Your task to perform on an android device: change notifications settings Image 0: 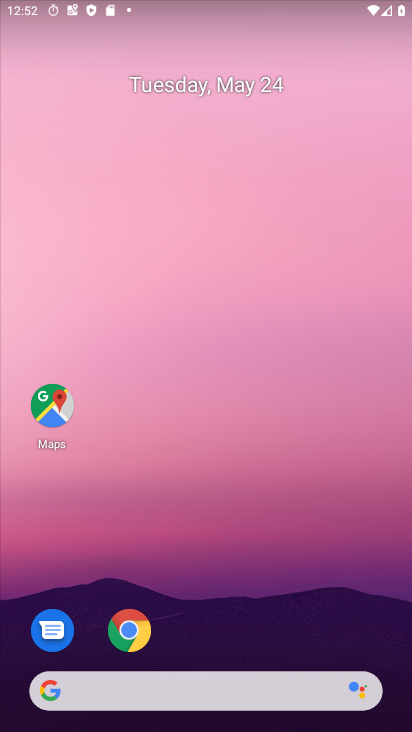
Step 0: drag from (231, 643) to (250, 115)
Your task to perform on an android device: change notifications settings Image 1: 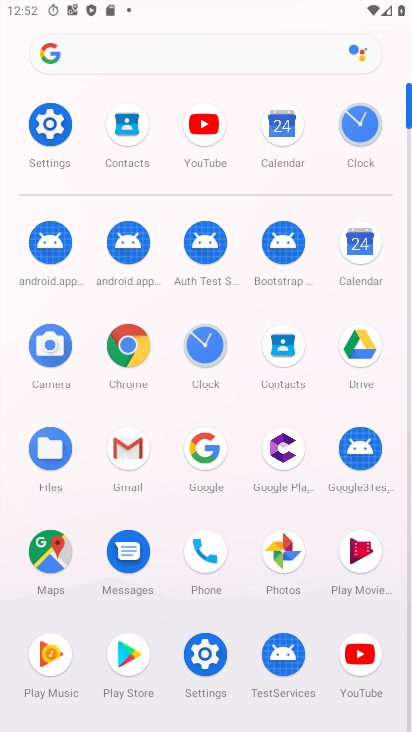
Step 1: click (49, 128)
Your task to perform on an android device: change notifications settings Image 2: 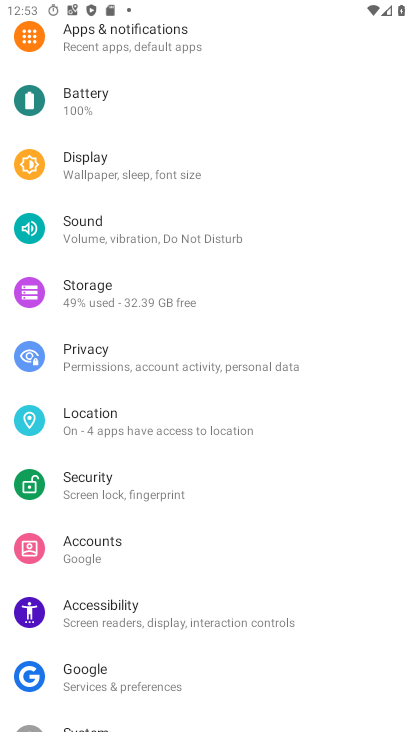
Step 2: click (139, 41)
Your task to perform on an android device: change notifications settings Image 3: 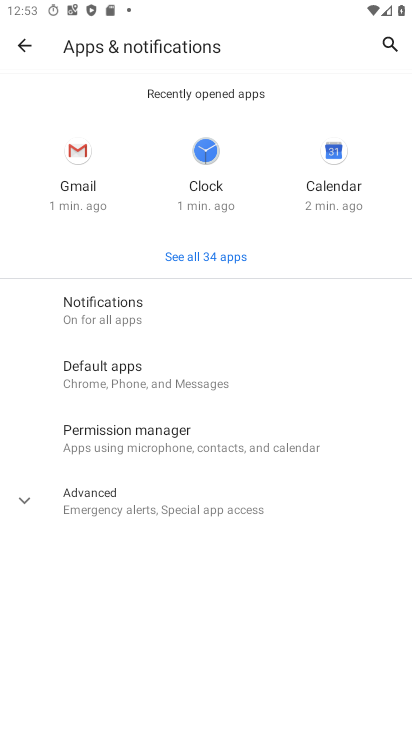
Step 3: click (60, 310)
Your task to perform on an android device: change notifications settings Image 4: 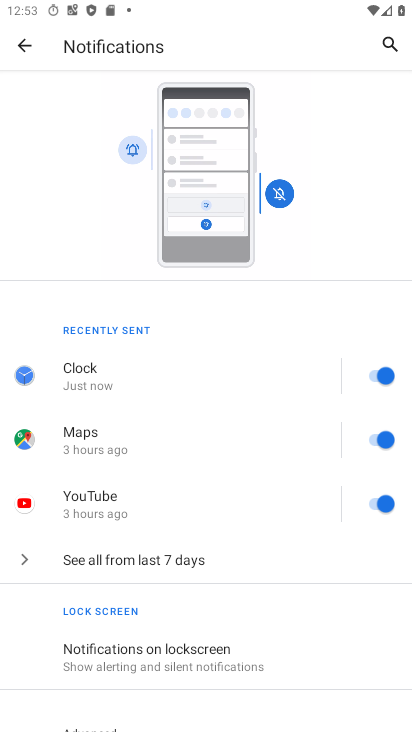
Step 4: drag from (136, 605) to (140, 385)
Your task to perform on an android device: change notifications settings Image 5: 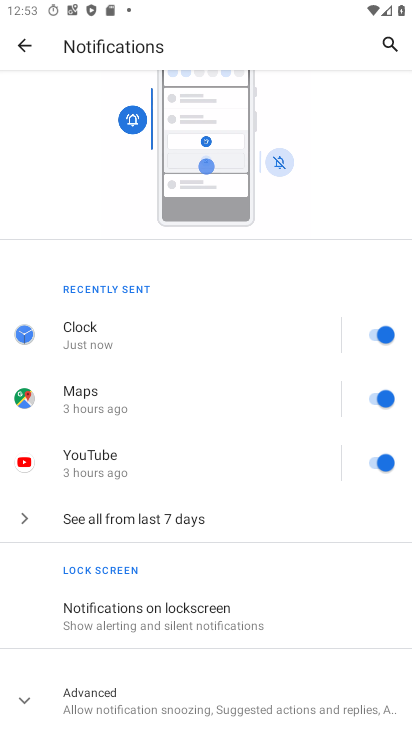
Step 5: click (120, 524)
Your task to perform on an android device: change notifications settings Image 6: 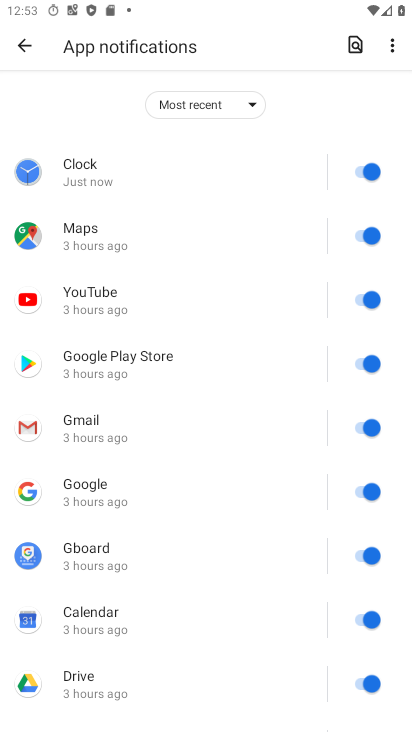
Step 6: click (248, 102)
Your task to perform on an android device: change notifications settings Image 7: 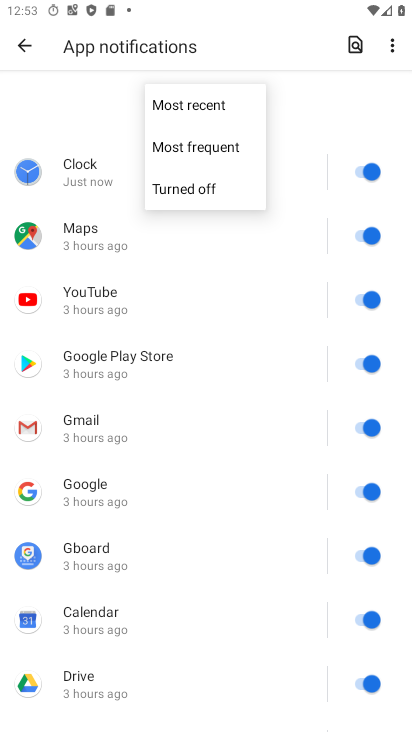
Step 7: click (188, 150)
Your task to perform on an android device: change notifications settings Image 8: 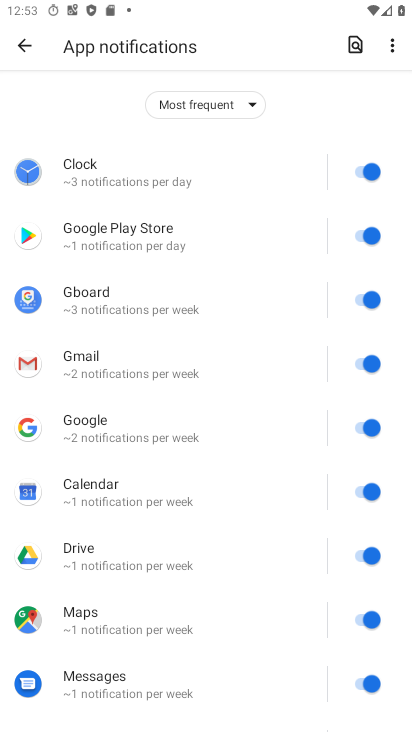
Step 8: task complete